Your task to perform on an android device: turn on bluetooth scan Image 0: 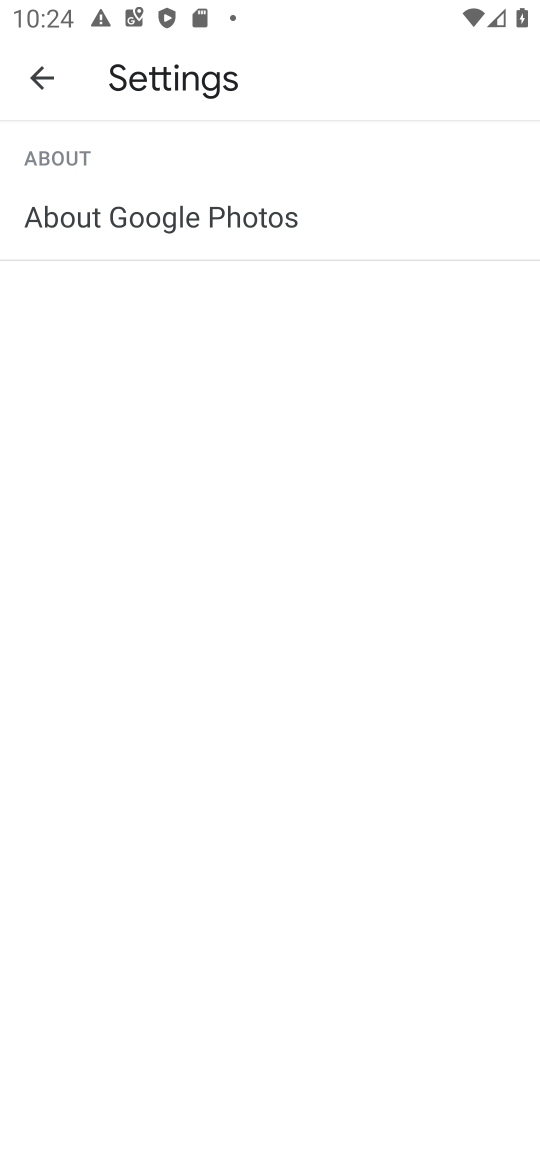
Step 0: press home button
Your task to perform on an android device: turn on bluetooth scan Image 1: 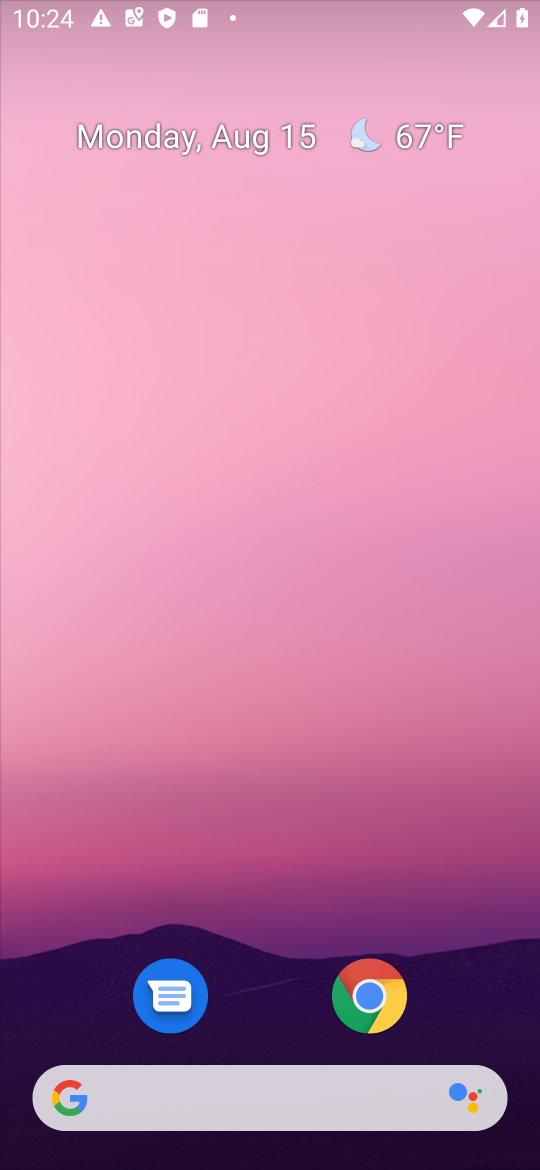
Step 1: drag from (381, 1060) to (436, 483)
Your task to perform on an android device: turn on bluetooth scan Image 2: 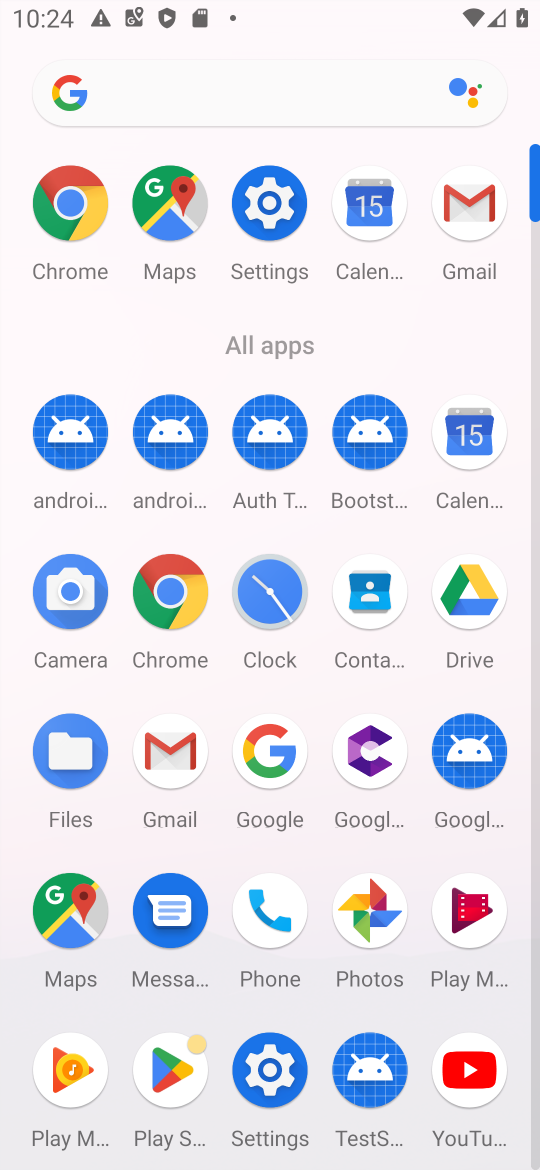
Step 2: click (283, 208)
Your task to perform on an android device: turn on bluetooth scan Image 3: 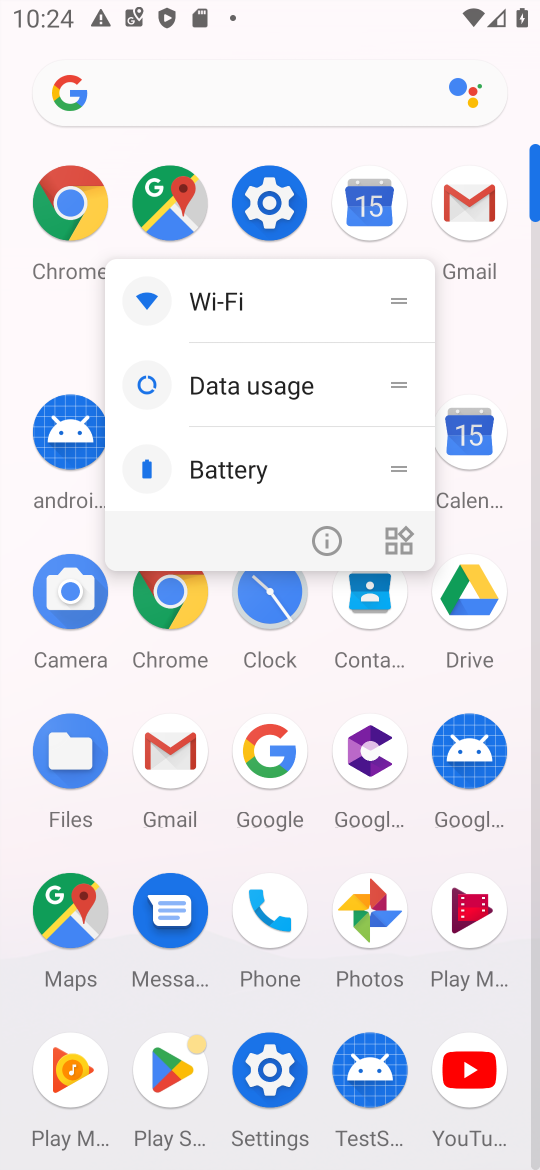
Step 3: click (258, 213)
Your task to perform on an android device: turn on bluetooth scan Image 4: 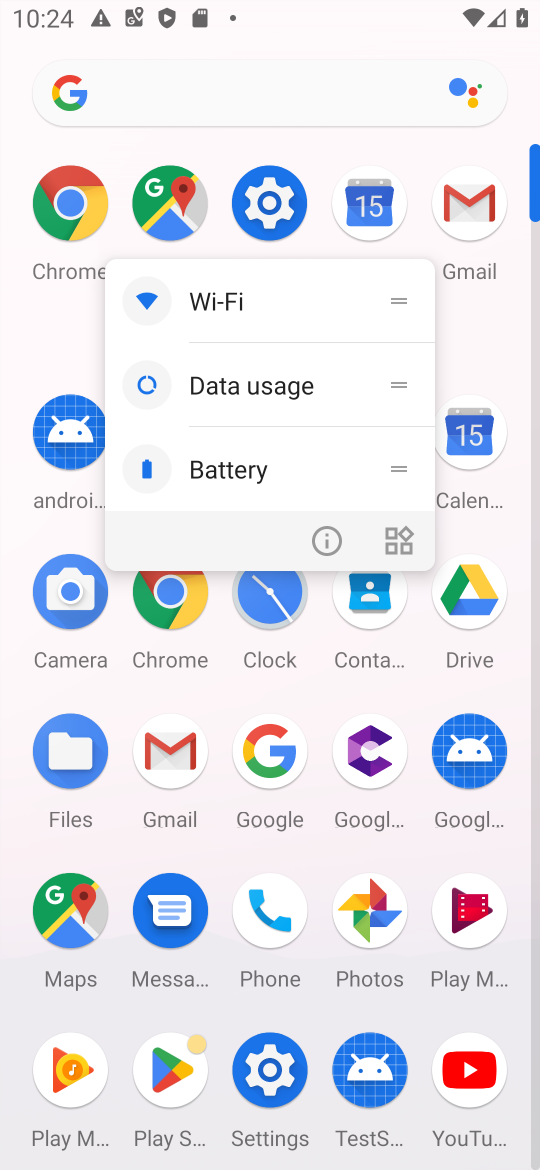
Step 4: click (254, 203)
Your task to perform on an android device: turn on bluetooth scan Image 5: 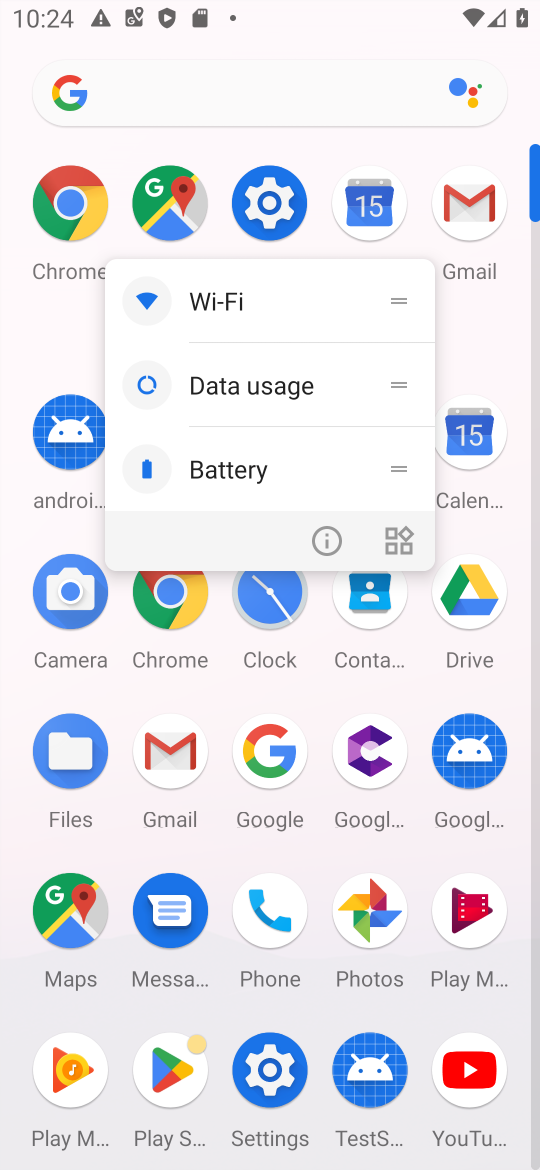
Step 5: click (266, 209)
Your task to perform on an android device: turn on bluetooth scan Image 6: 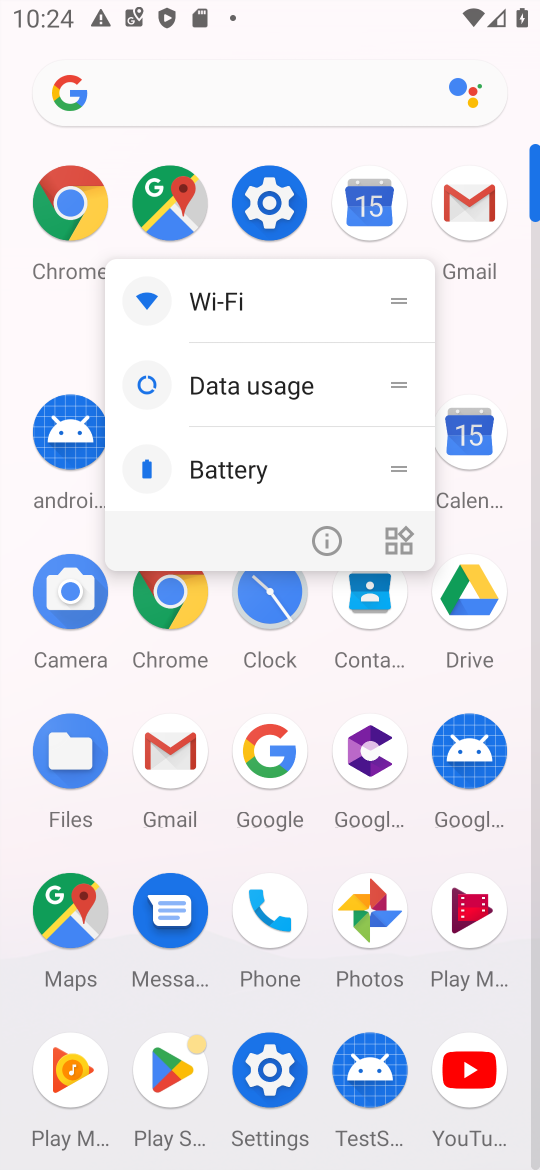
Step 6: click (270, 209)
Your task to perform on an android device: turn on bluetooth scan Image 7: 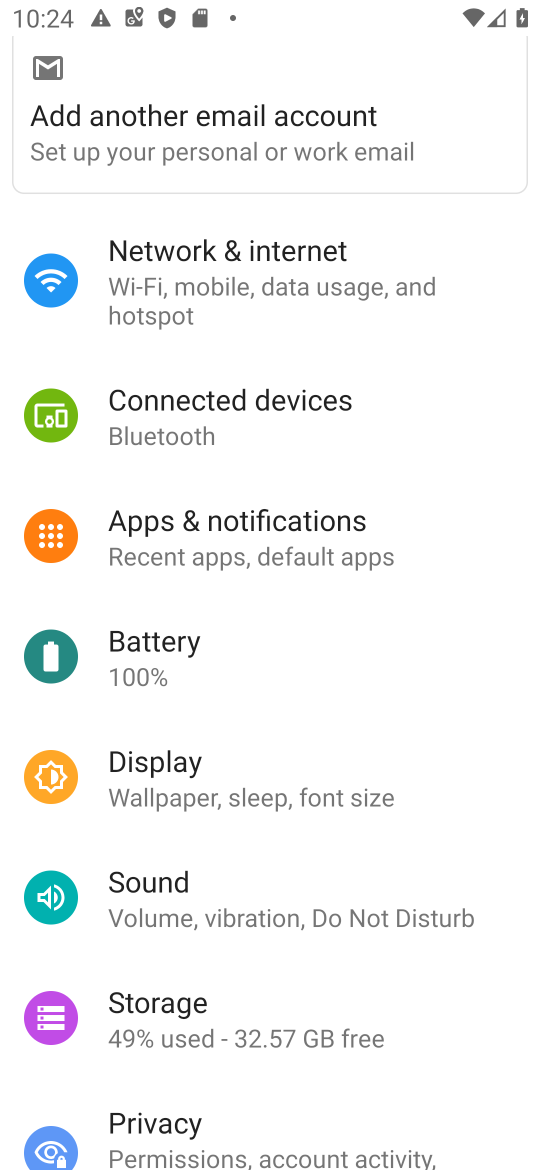
Step 7: drag from (187, 1017) to (237, 629)
Your task to perform on an android device: turn on bluetooth scan Image 8: 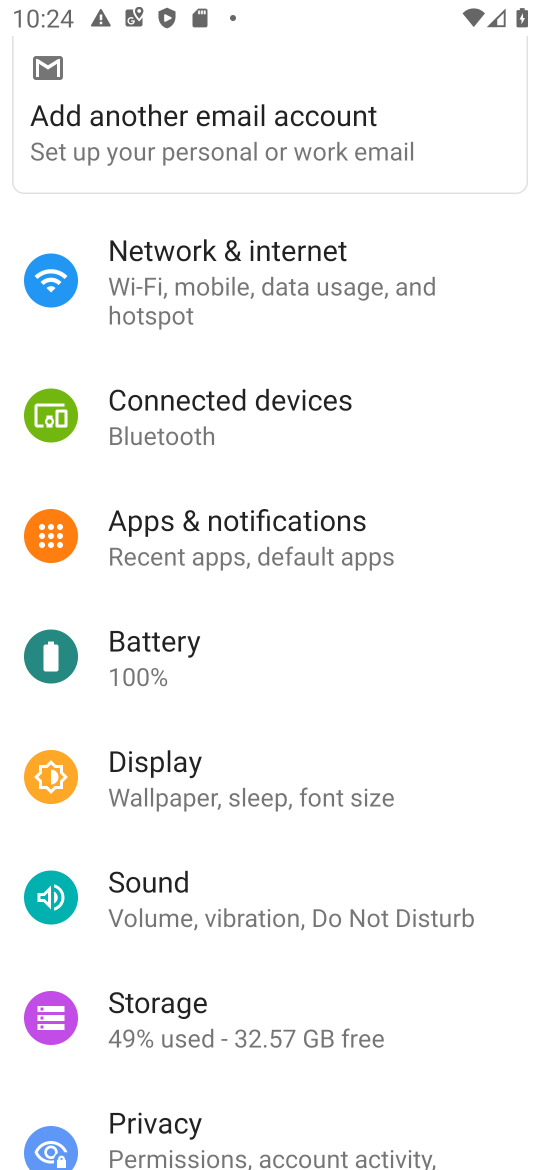
Step 8: drag from (205, 1136) to (220, 546)
Your task to perform on an android device: turn on bluetooth scan Image 9: 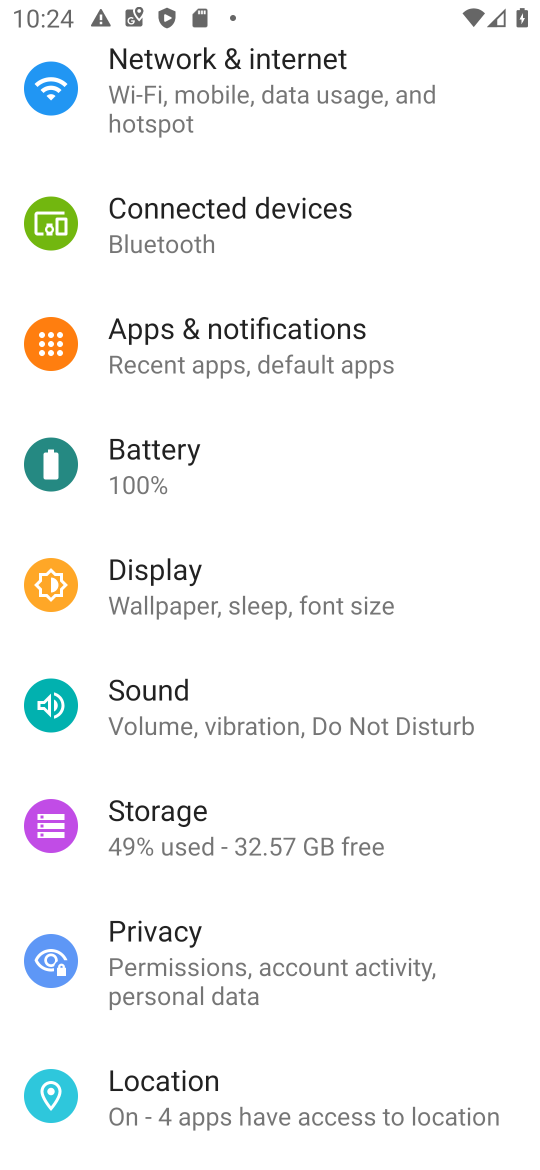
Step 9: click (143, 1112)
Your task to perform on an android device: turn on bluetooth scan Image 10: 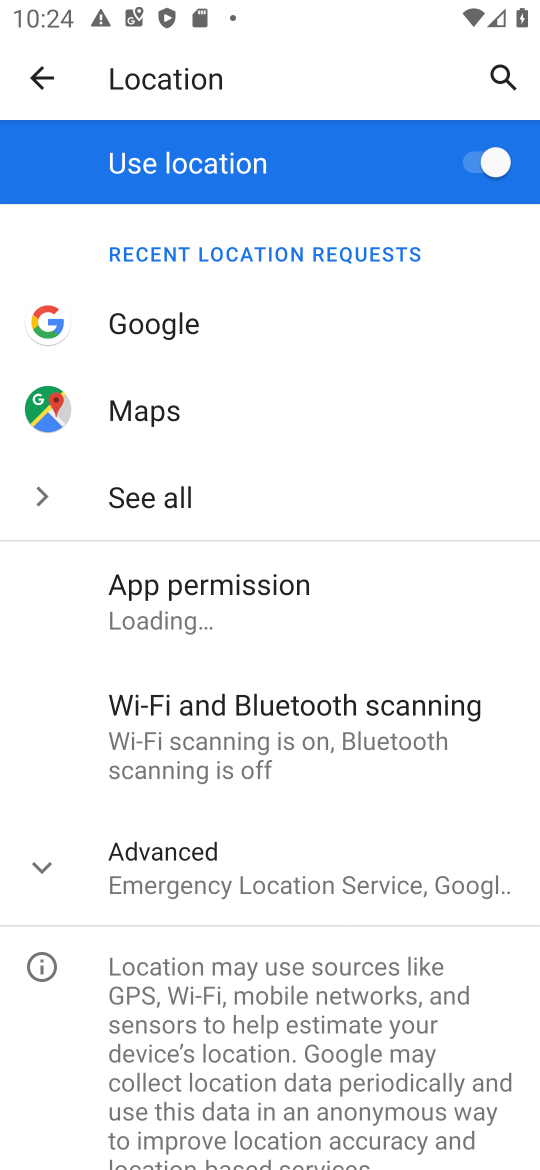
Step 10: click (156, 743)
Your task to perform on an android device: turn on bluetooth scan Image 11: 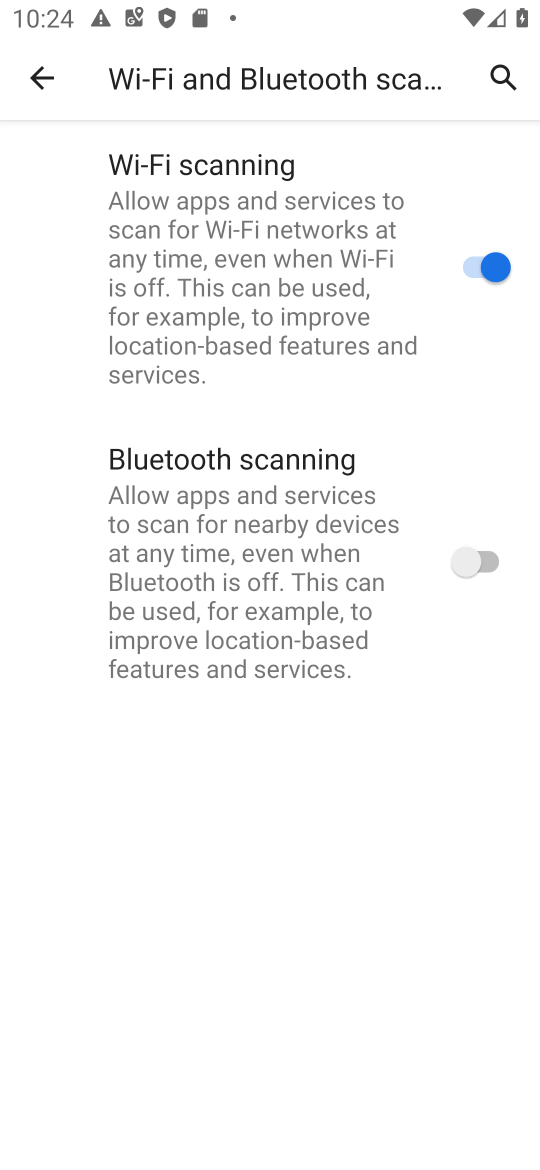
Step 11: click (484, 559)
Your task to perform on an android device: turn on bluetooth scan Image 12: 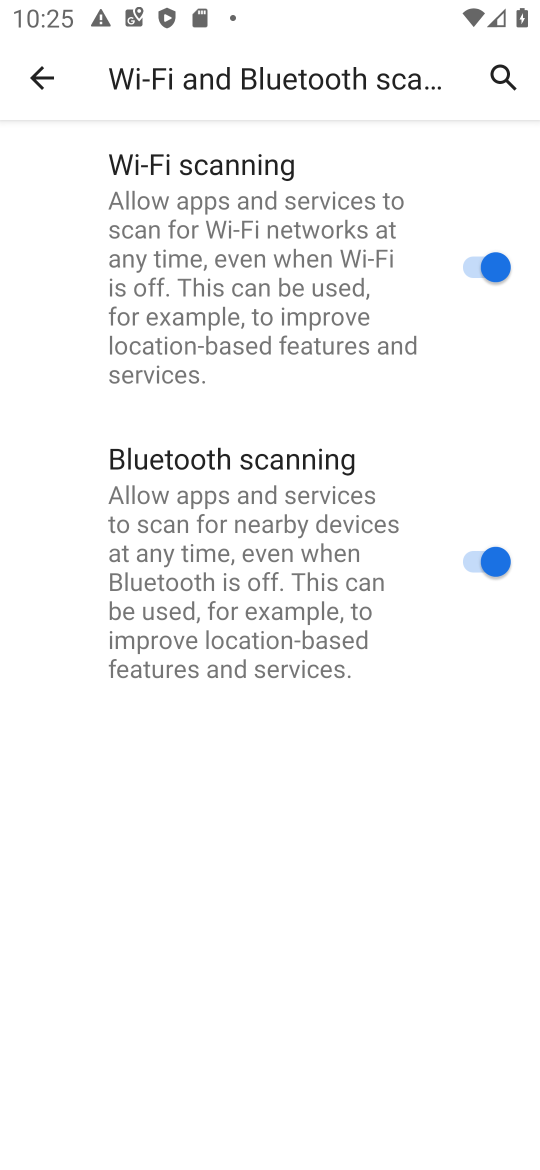
Step 12: task complete